Your task to perform on an android device: Open the calendar and show me this week's events? Image 0: 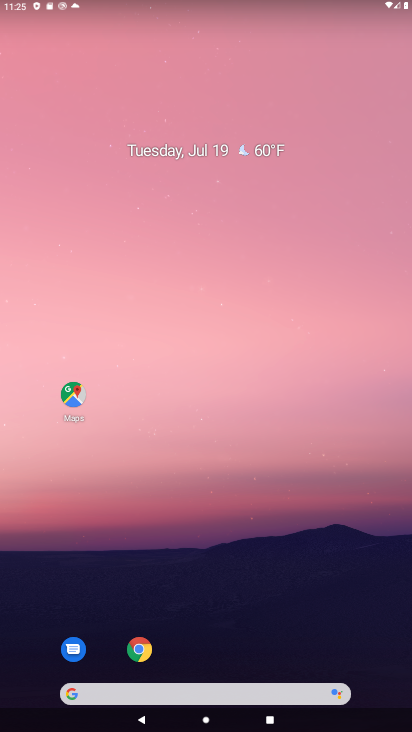
Step 0: drag from (234, 674) to (137, 136)
Your task to perform on an android device: Open the calendar and show me this week's events? Image 1: 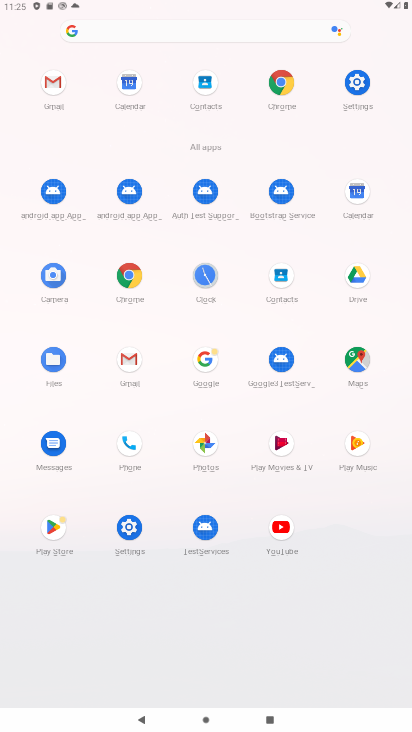
Step 1: click (356, 211)
Your task to perform on an android device: Open the calendar and show me this week's events? Image 2: 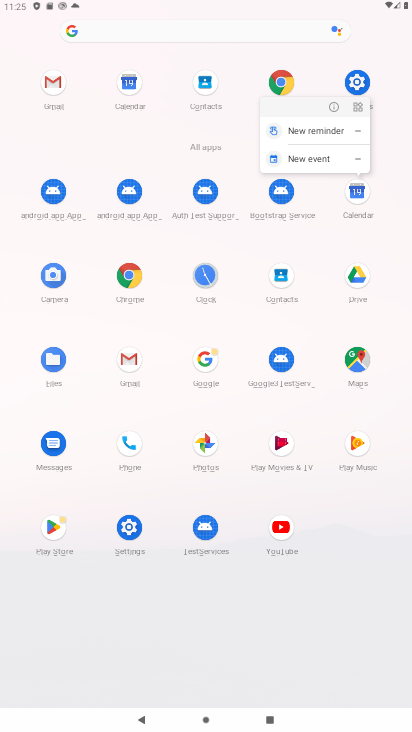
Step 2: click (359, 206)
Your task to perform on an android device: Open the calendar and show me this week's events? Image 3: 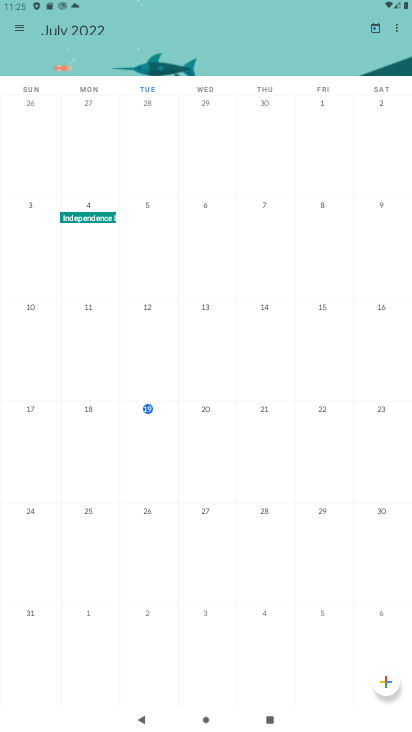
Step 3: click (18, 30)
Your task to perform on an android device: Open the calendar and show me this week's events? Image 4: 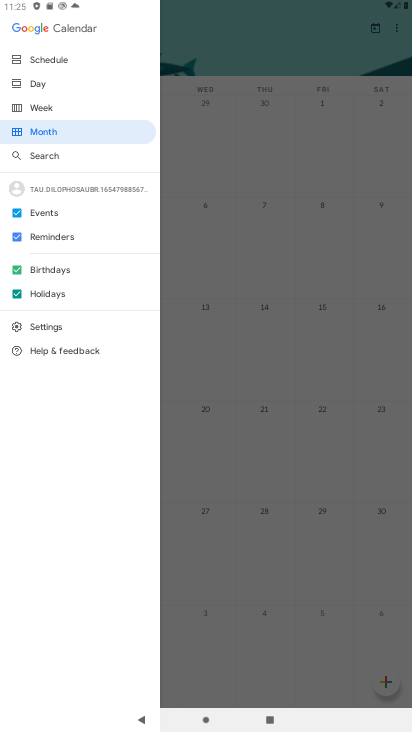
Step 4: click (37, 103)
Your task to perform on an android device: Open the calendar and show me this week's events? Image 5: 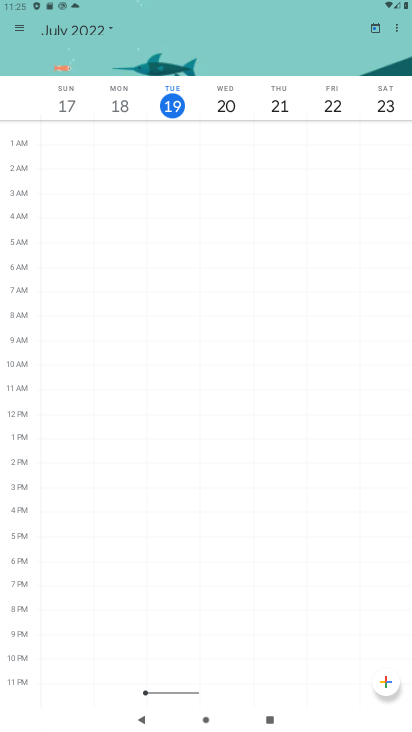
Step 5: task complete